Your task to perform on an android device: Open ESPN.com Image 0: 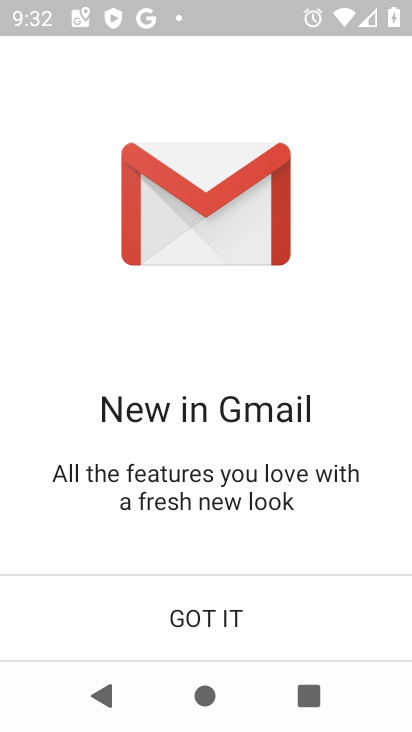
Step 0: press home button
Your task to perform on an android device: Open ESPN.com Image 1: 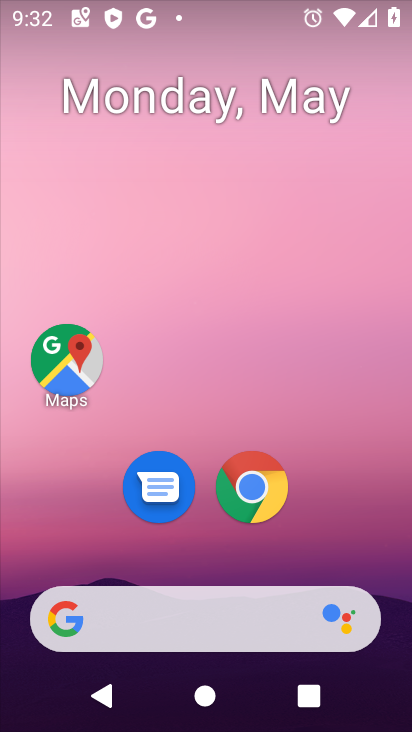
Step 1: click (256, 487)
Your task to perform on an android device: Open ESPN.com Image 2: 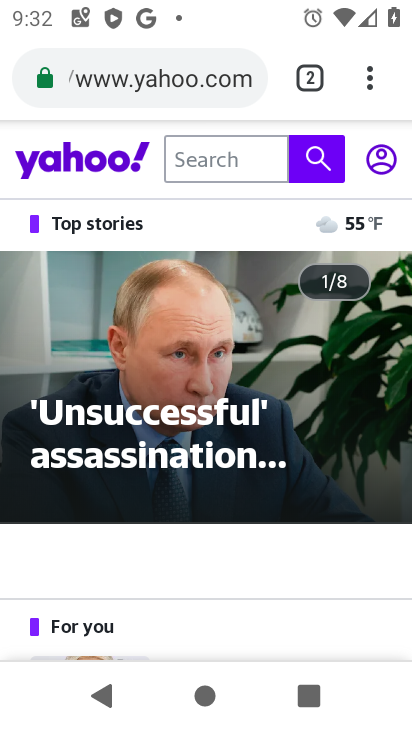
Step 2: click (307, 80)
Your task to perform on an android device: Open ESPN.com Image 3: 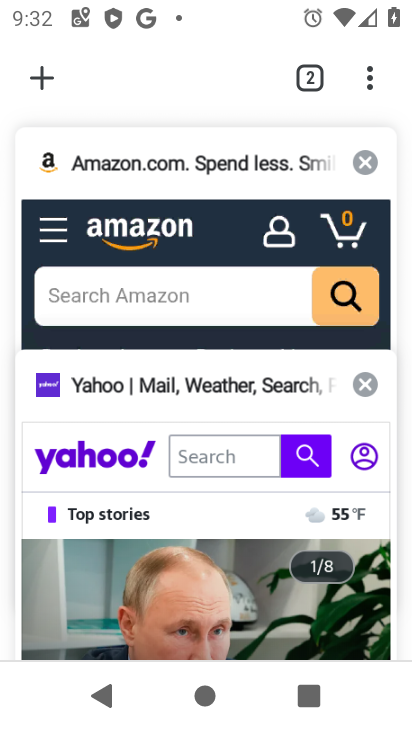
Step 3: click (38, 69)
Your task to perform on an android device: Open ESPN.com Image 4: 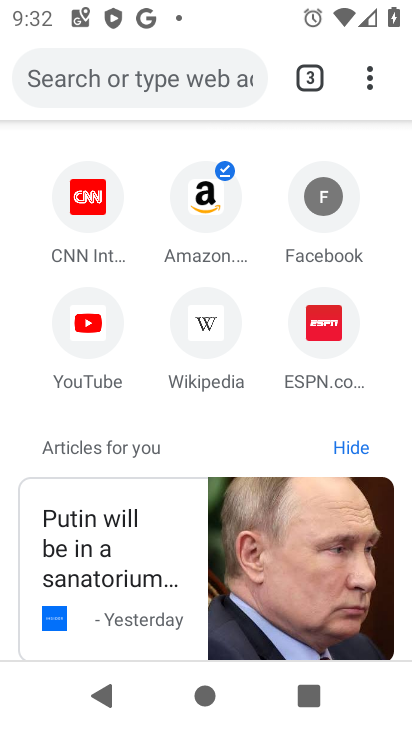
Step 4: click (325, 335)
Your task to perform on an android device: Open ESPN.com Image 5: 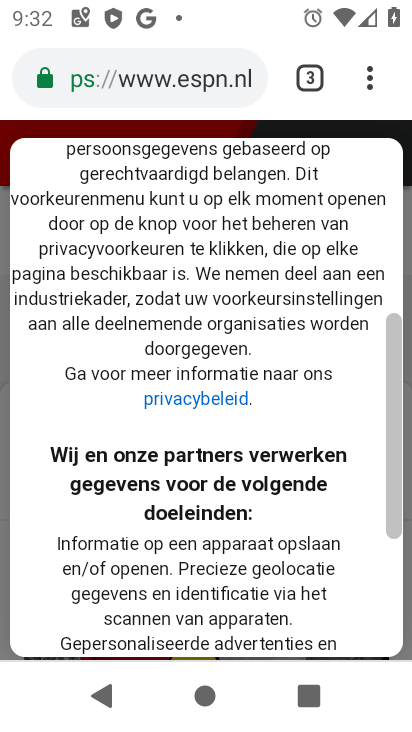
Step 5: task complete